Your task to perform on an android device: see creations saved in the google photos Image 0: 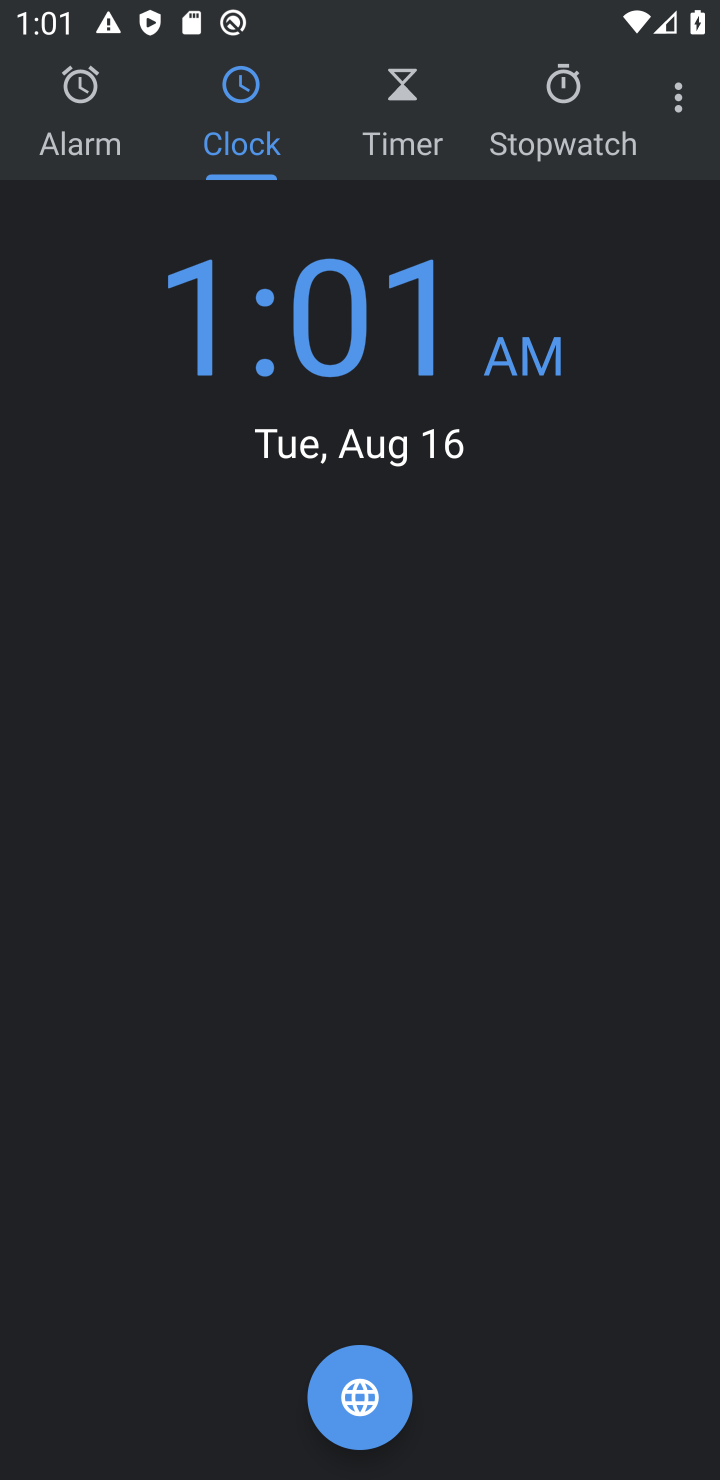
Step 0: task complete